Your task to perform on an android device: Go to ESPN.com Image 0: 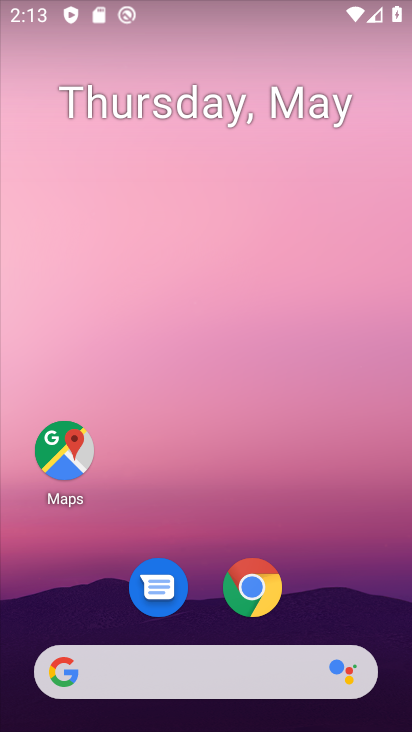
Step 0: click (252, 580)
Your task to perform on an android device: Go to ESPN.com Image 1: 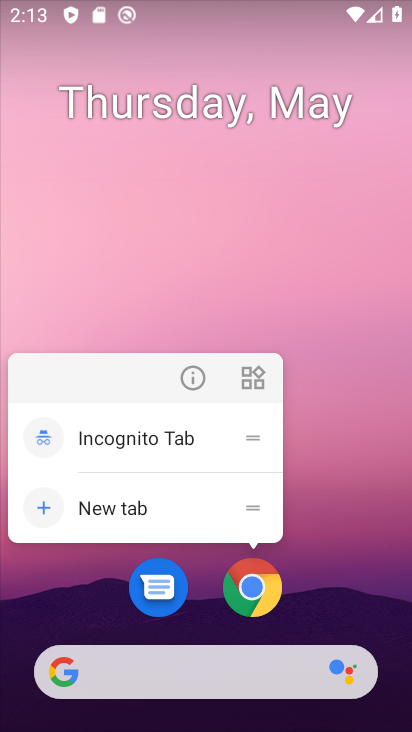
Step 1: click (259, 583)
Your task to perform on an android device: Go to ESPN.com Image 2: 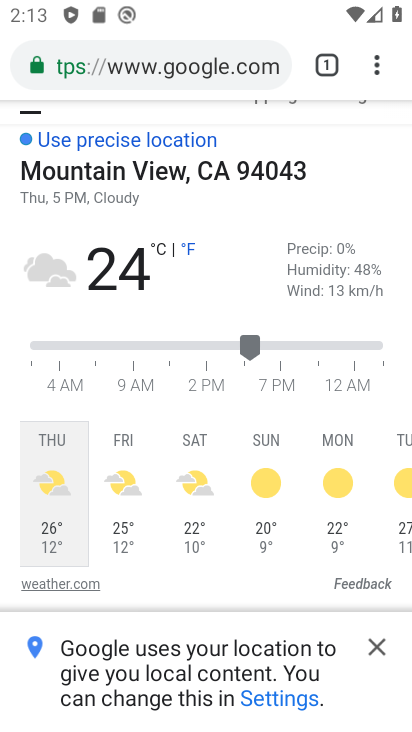
Step 2: click (161, 66)
Your task to perform on an android device: Go to ESPN.com Image 3: 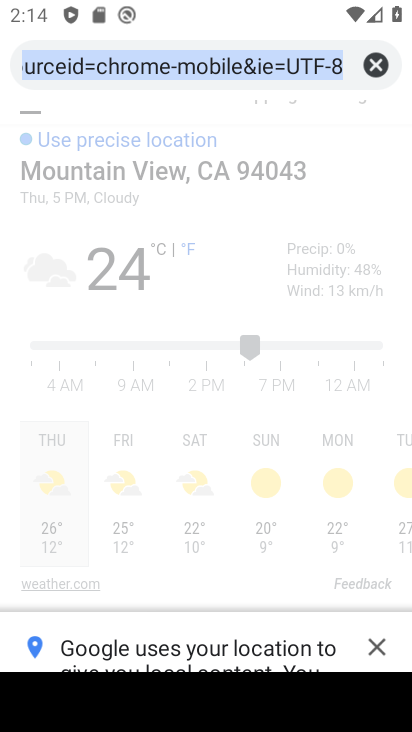
Step 3: type "espn.com"
Your task to perform on an android device: Go to ESPN.com Image 4: 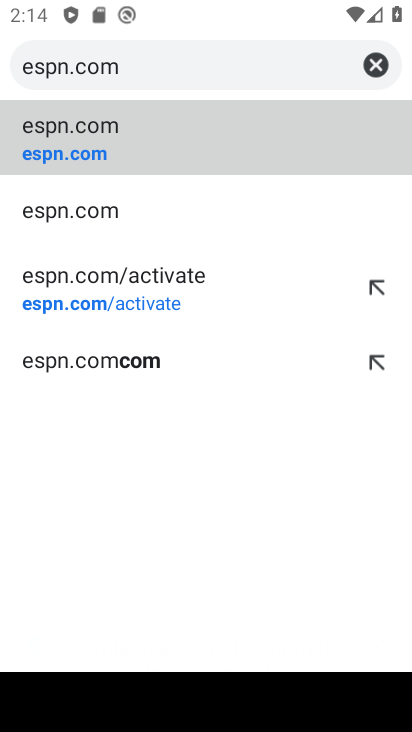
Step 4: click (81, 151)
Your task to perform on an android device: Go to ESPN.com Image 5: 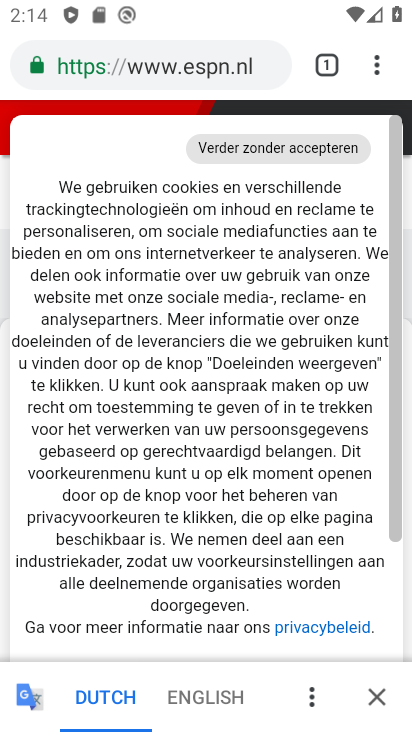
Step 5: task complete